Your task to perform on an android device: Go to display settings Image 0: 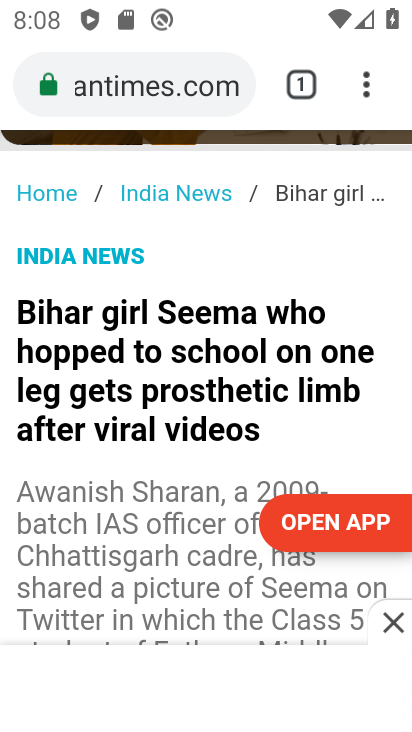
Step 0: task complete